Your task to perform on an android device: View the shopping cart on ebay.com. Add "logitech g502" to the cart on ebay.com Image 0: 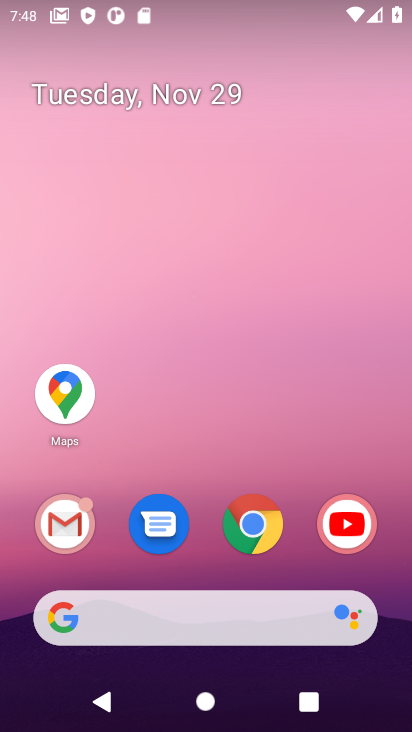
Step 0: click (244, 527)
Your task to perform on an android device: View the shopping cart on ebay.com. Add "logitech g502" to the cart on ebay.com Image 1: 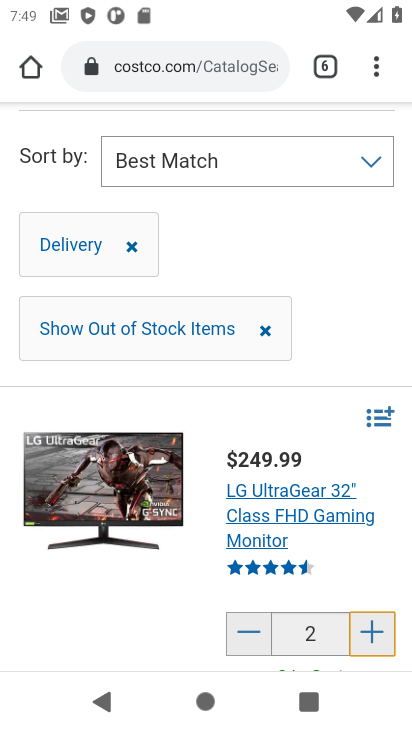
Step 1: click (193, 66)
Your task to perform on an android device: View the shopping cart on ebay.com. Add "logitech g502" to the cart on ebay.com Image 2: 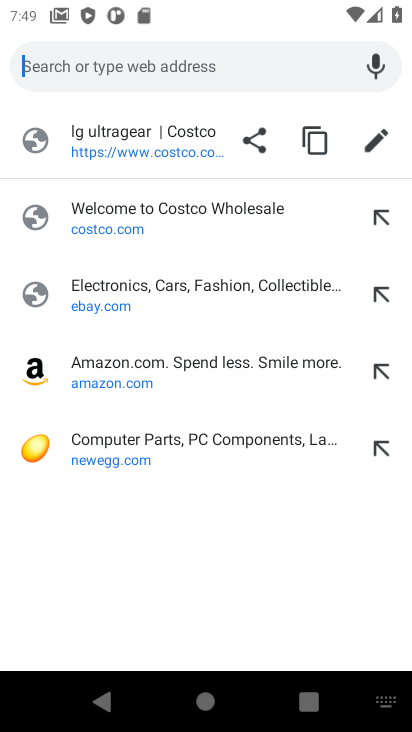
Step 2: click (90, 300)
Your task to perform on an android device: View the shopping cart on ebay.com. Add "logitech g502" to the cart on ebay.com Image 3: 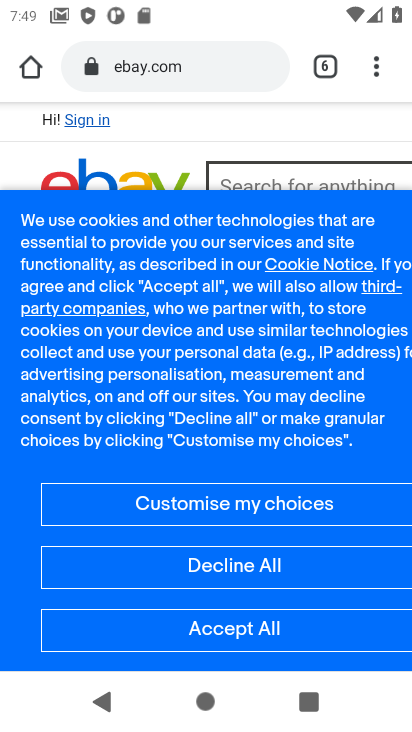
Step 3: click (211, 623)
Your task to perform on an android device: View the shopping cart on ebay.com. Add "logitech g502" to the cart on ebay.com Image 4: 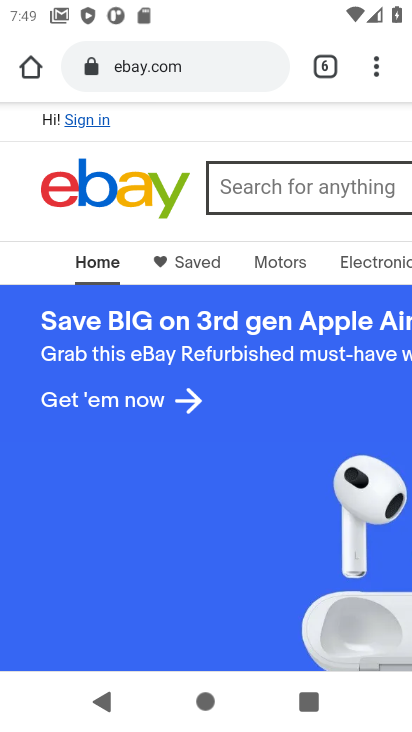
Step 4: drag from (301, 145) to (10, 161)
Your task to perform on an android device: View the shopping cart on ebay.com. Add "logitech g502" to the cart on ebay.com Image 5: 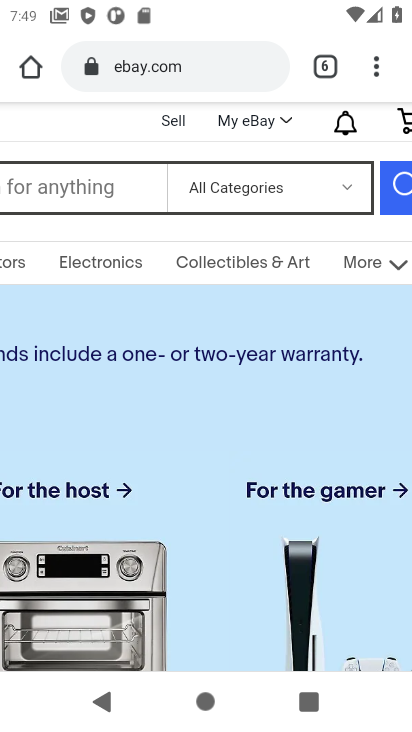
Step 5: click (409, 119)
Your task to perform on an android device: View the shopping cart on ebay.com. Add "logitech g502" to the cart on ebay.com Image 6: 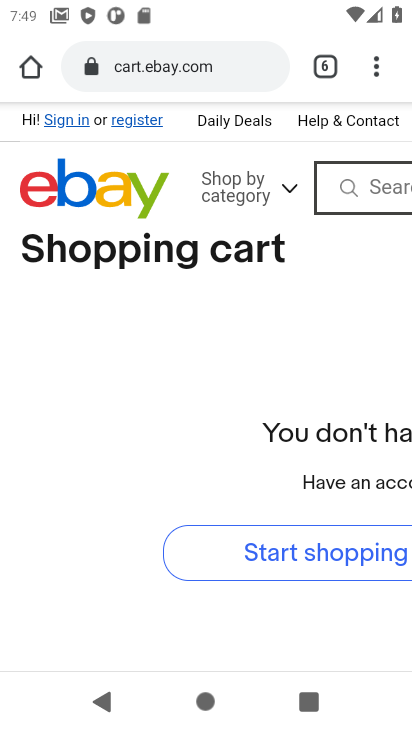
Step 6: drag from (309, 350) to (0, 377)
Your task to perform on an android device: View the shopping cart on ebay.com. Add "logitech g502" to the cart on ebay.com Image 7: 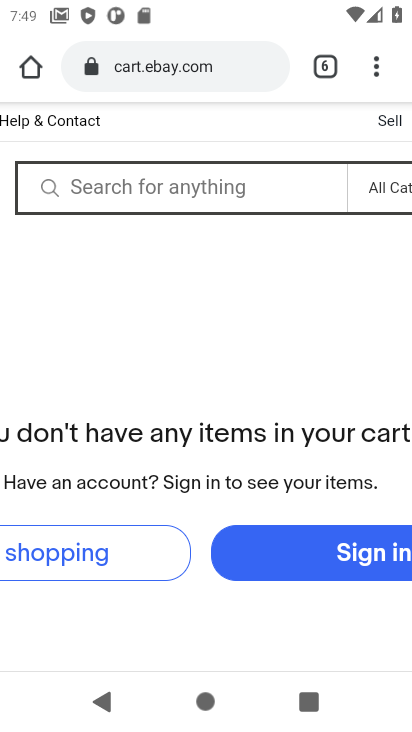
Step 7: click (81, 173)
Your task to perform on an android device: View the shopping cart on ebay.com. Add "logitech g502" to the cart on ebay.com Image 8: 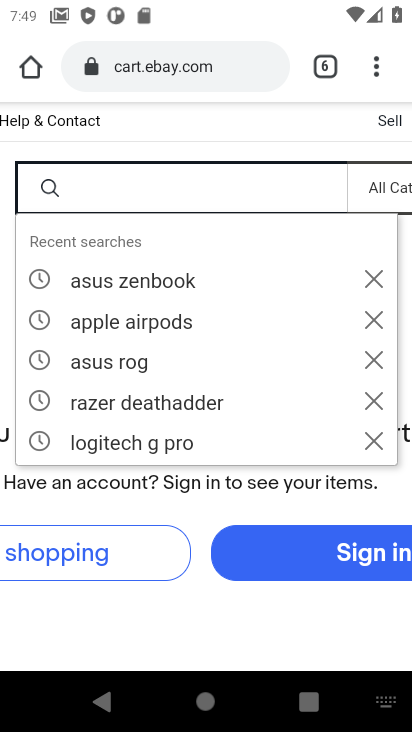
Step 8: type "logitech g502"
Your task to perform on an android device: View the shopping cart on ebay.com. Add "logitech g502" to the cart on ebay.com Image 9: 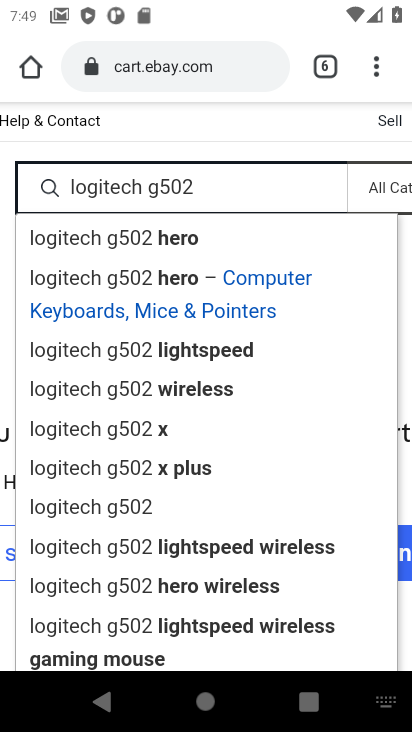
Step 9: click (113, 516)
Your task to perform on an android device: View the shopping cart on ebay.com. Add "logitech g502" to the cart on ebay.com Image 10: 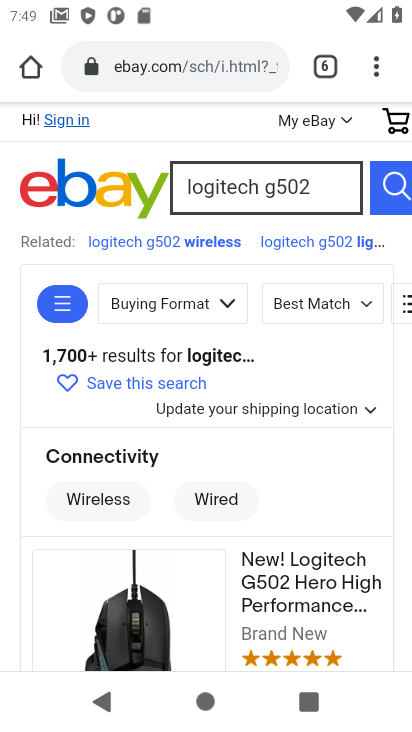
Step 10: drag from (226, 600) to (196, 381)
Your task to perform on an android device: View the shopping cart on ebay.com. Add "logitech g502" to the cart on ebay.com Image 11: 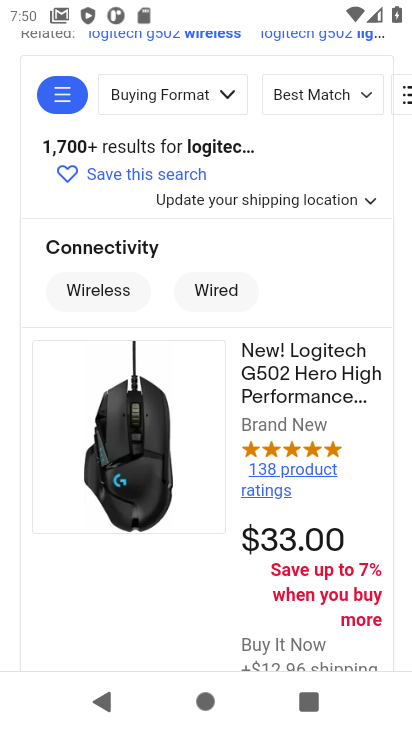
Step 11: click (185, 440)
Your task to perform on an android device: View the shopping cart on ebay.com. Add "logitech g502" to the cart on ebay.com Image 12: 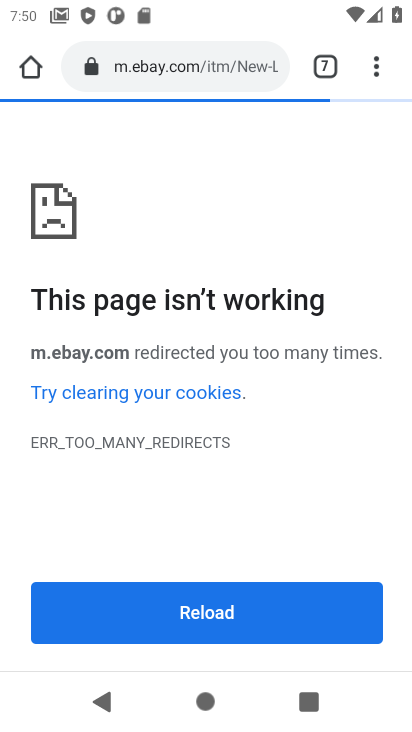
Step 12: task complete